Your task to perform on an android device: Turn on the flashlight Image 0: 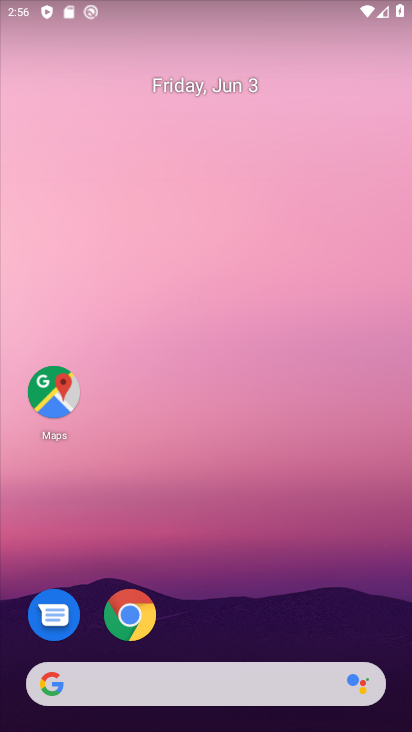
Step 0: drag from (223, 628) to (275, 154)
Your task to perform on an android device: Turn on the flashlight Image 1: 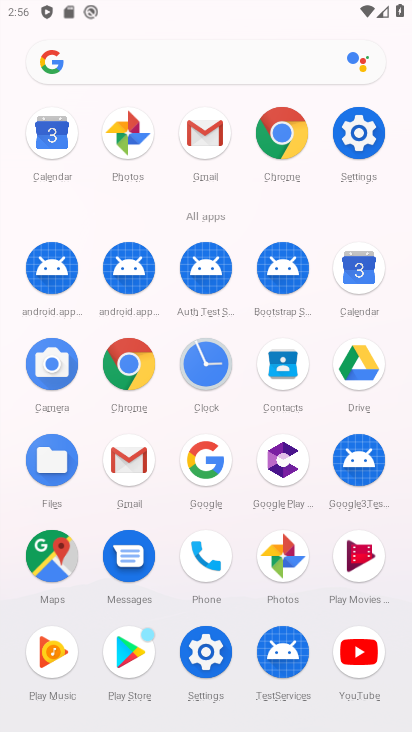
Step 1: click (362, 128)
Your task to perform on an android device: Turn on the flashlight Image 2: 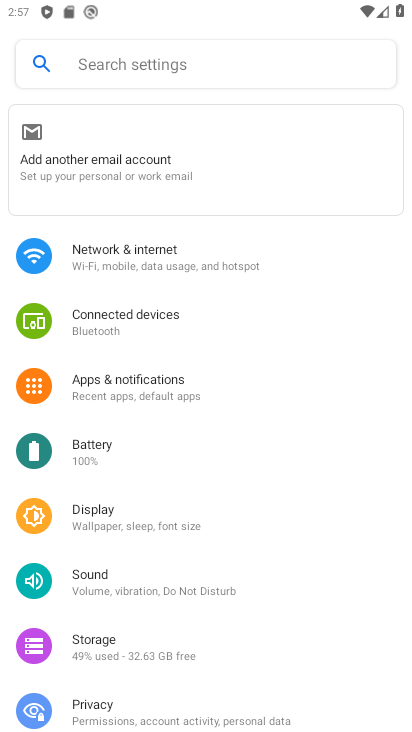
Step 2: click (128, 522)
Your task to perform on an android device: Turn on the flashlight Image 3: 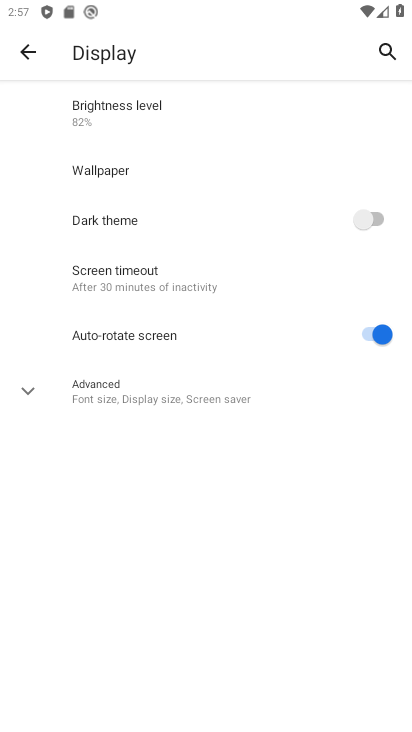
Step 3: task complete